Your task to perform on an android device: Go to sound settings Image 0: 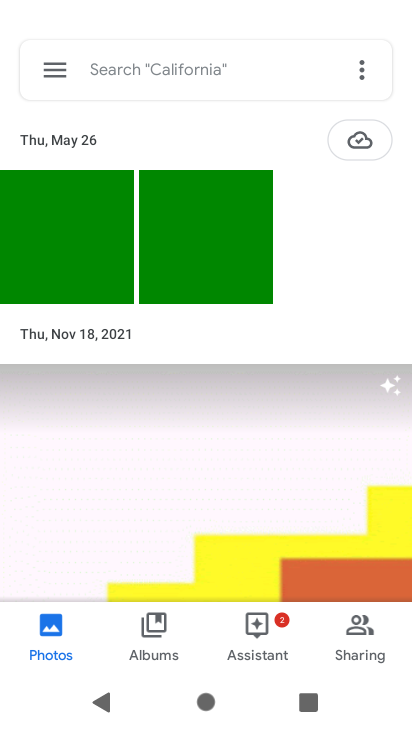
Step 0: press home button
Your task to perform on an android device: Go to sound settings Image 1: 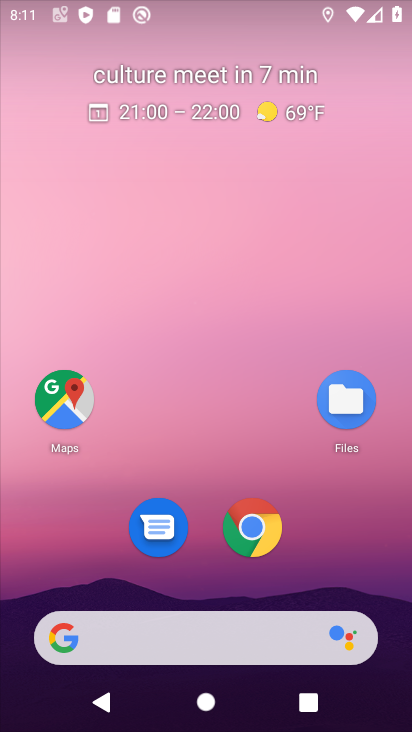
Step 1: drag from (322, 562) to (310, 109)
Your task to perform on an android device: Go to sound settings Image 2: 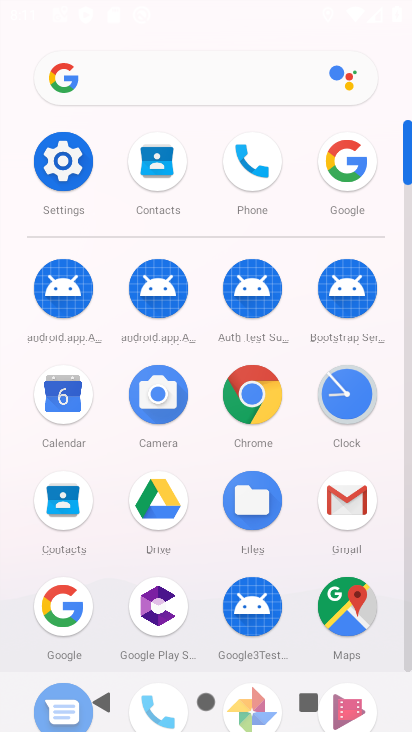
Step 2: click (70, 169)
Your task to perform on an android device: Go to sound settings Image 3: 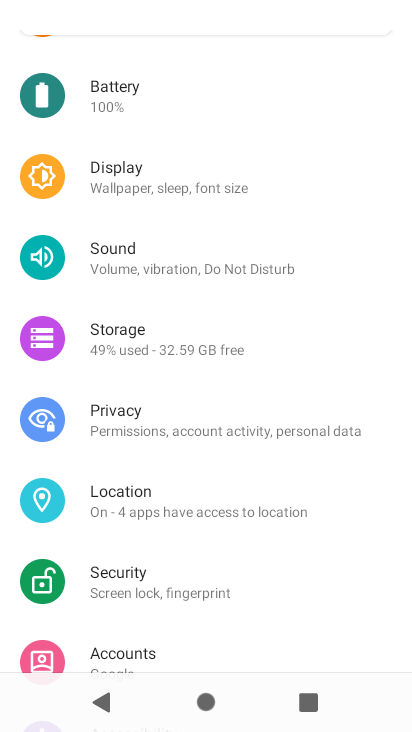
Step 3: click (150, 246)
Your task to perform on an android device: Go to sound settings Image 4: 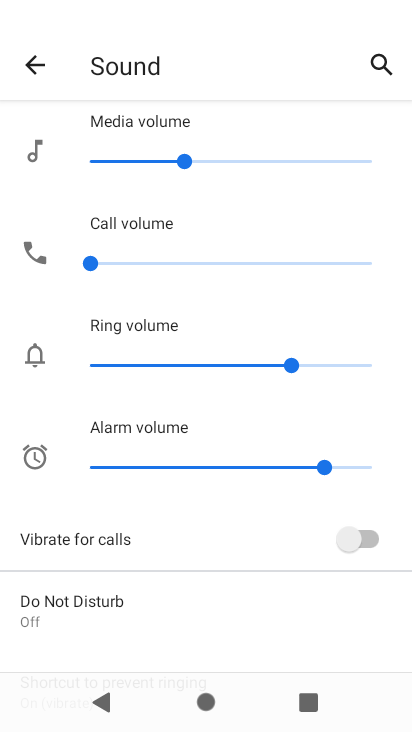
Step 4: task complete